Your task to perform on an android device: Open the phone app and click the voicemail tab. Image 0: 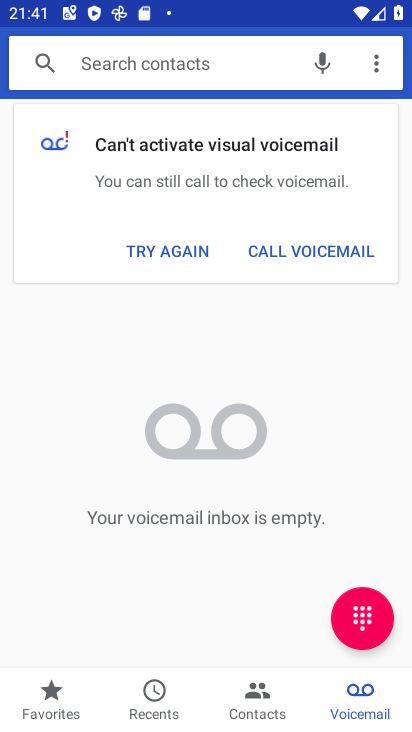
Step 0: press home button
Your task to perform on an android device: Open the phone app and click the voicemail tab. Image 1: 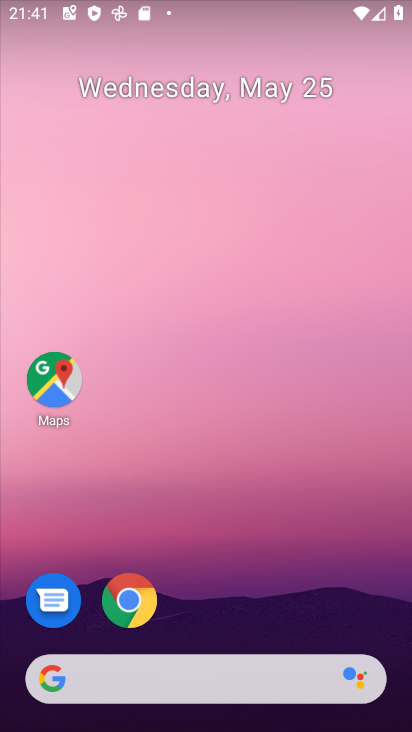
Step 1: drag from (331, 603) to (324, 133)
Your task to perform on an android device: Open the phone app and click the voicemail tab. Image 2: 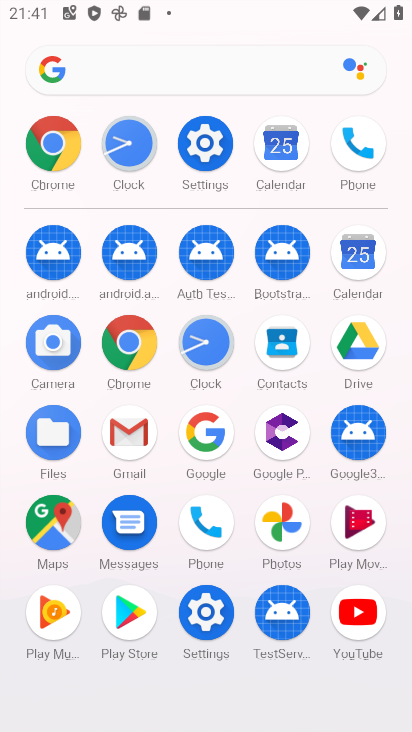
Step 2: click (207, 523)
Your task to perform on an android device: Open the phone app and click the voicemail tab. Image 3: 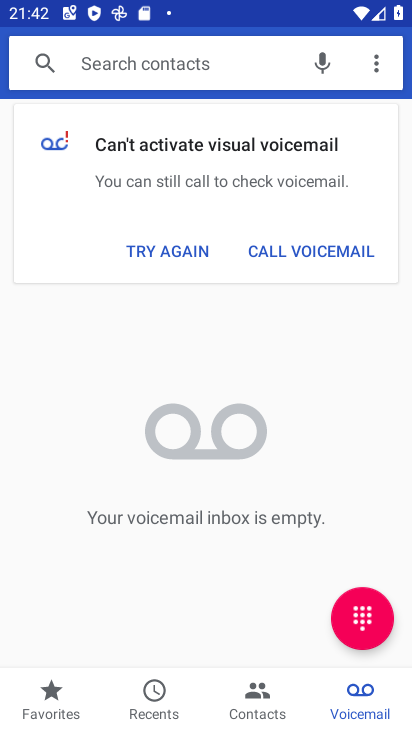
Step 3: task complete